Your task to perform on an android device: turn on javascript in the chrome app Image 0: 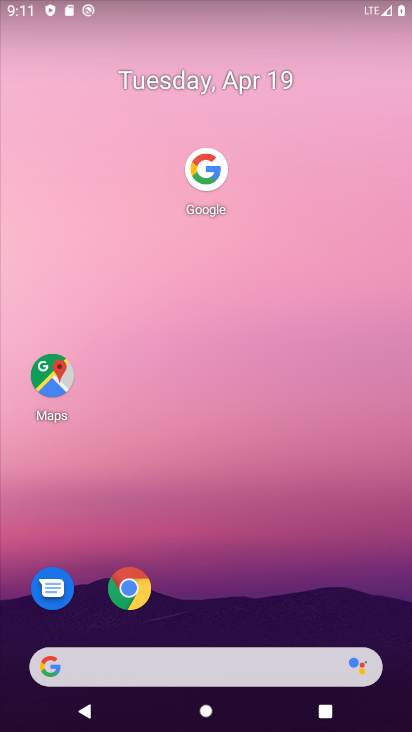
Step 0: click (131, 591)
Your task to perform on an android device: turn on javascript in the chrome app Image 1: 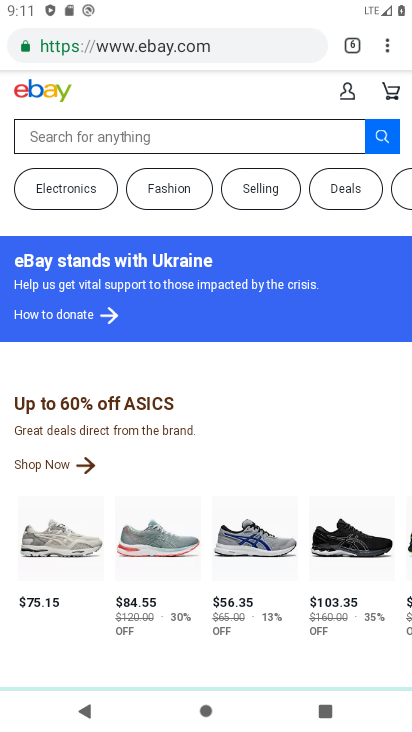
Step 1: click (384, 50)
Your task to perform on an android device: turn on javascript in the chrome app Image 2: 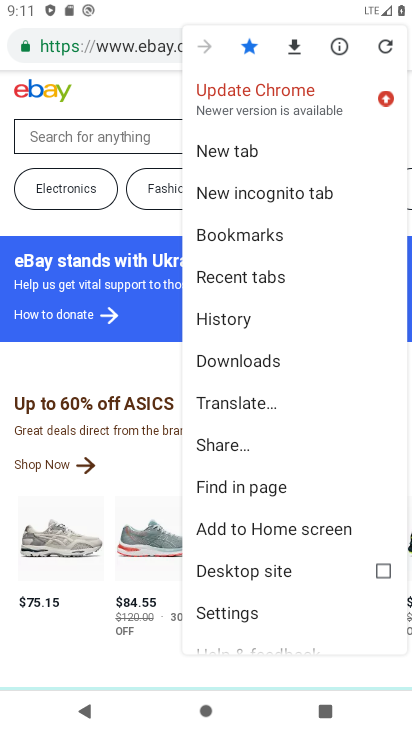
Step 2: click (232, 611)
Your task to perform on an android device: turn on javascript in the chrome app Image 3: 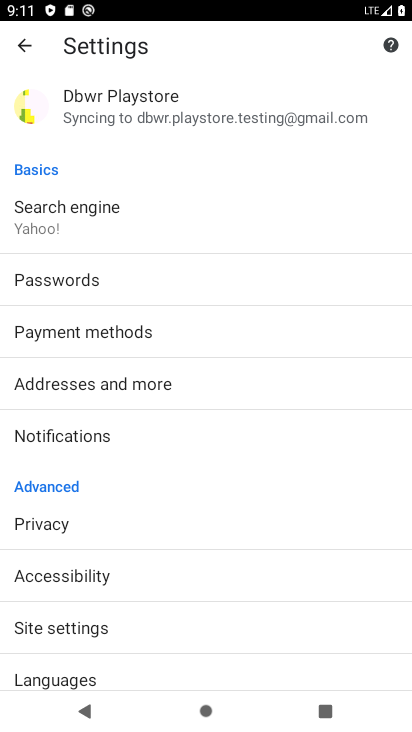
Step 3: click (65, 622)
Your task to perform on an android device: turn on javascript in the chrome app Image 4: 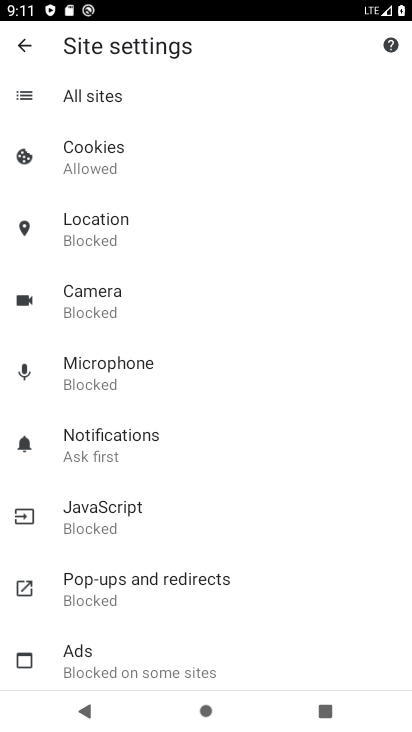
Step 4: click (102, 507)
Your task to perform on an android device: turn on javascript in the chrome app Image 5: 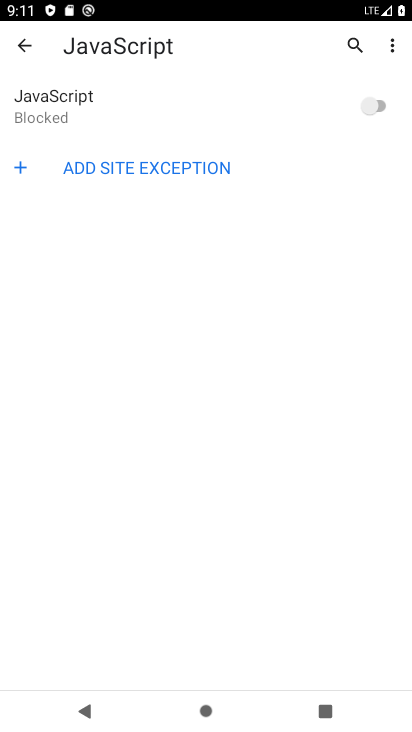
Step 5: click (371, 104)
Your task to perform on an android device: turn on javascript in the chrome app Image 6: 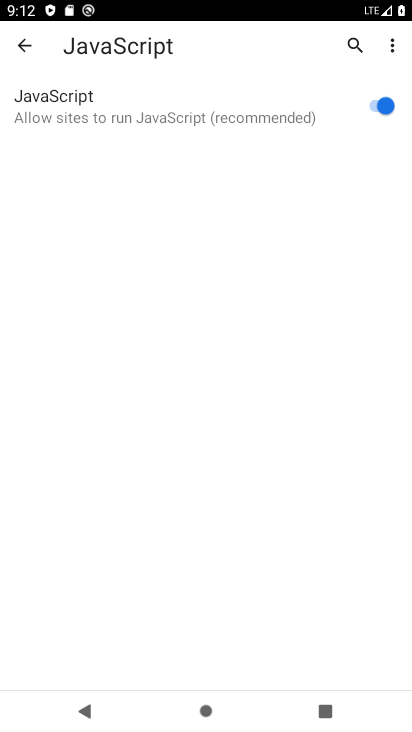
Step 6: task complete